Your task to perform on an android device: Go to Google Image 0: 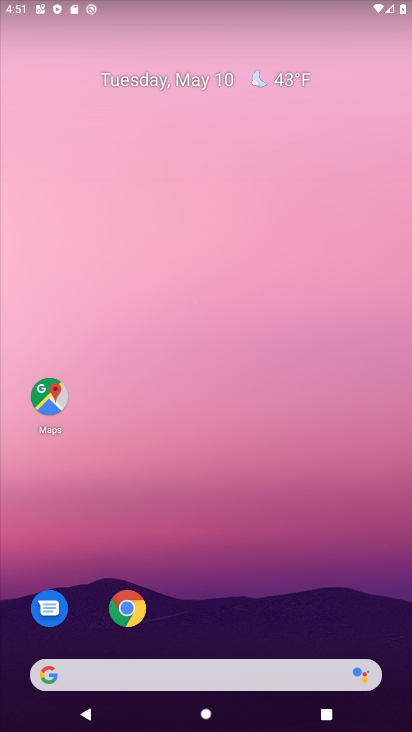
Step 0: drag from (196, 627) to (281, 178)
Your task to perform on an android device: Go to Google Image 1: 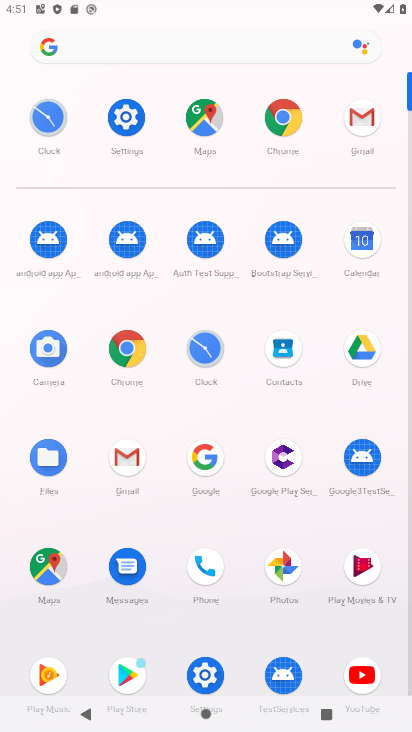
Step 1: click (199, 451)
Your task to perform on an android device: Go to Google Image 2: 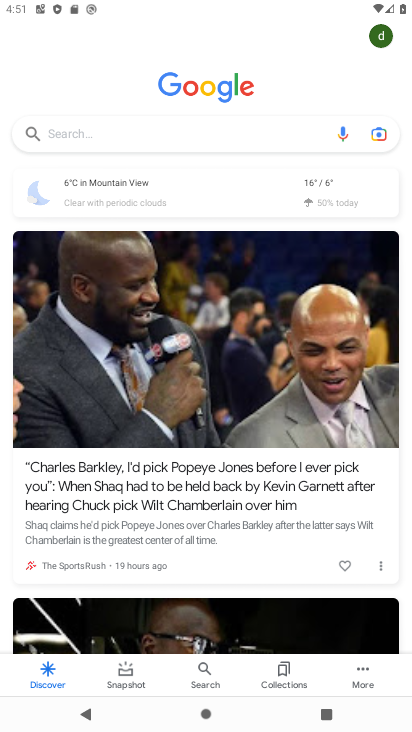
Step 2: task complete